Your task to perform on an android device: Go to location settings Image 0: 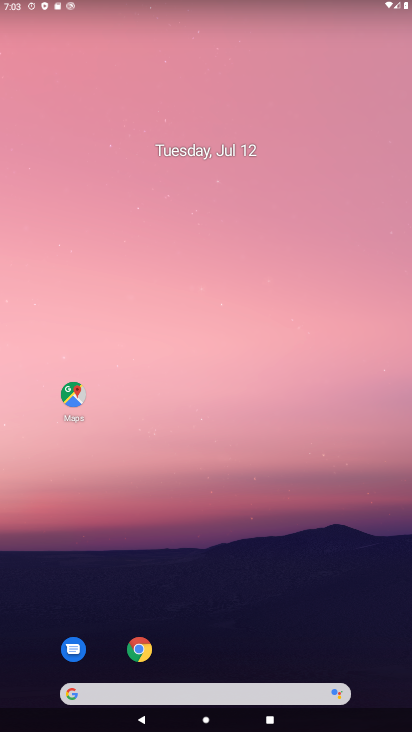
Step 0: drag from (198, 690) to (216, 248)
Your task to perform on an android device: Go to location settings Image 1: 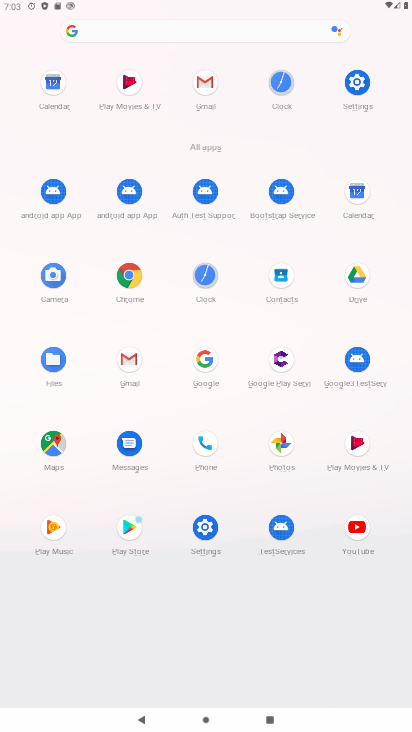
Step 1: click (357, 82)
Your task to perform on an android device: Go to location settings Image 2: 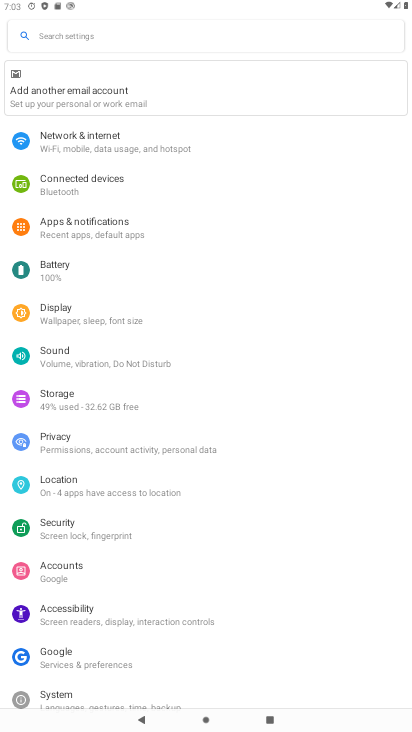
Step 2: click (73, 490)
Your task to perform on an android device: Go to location settings Image 3: 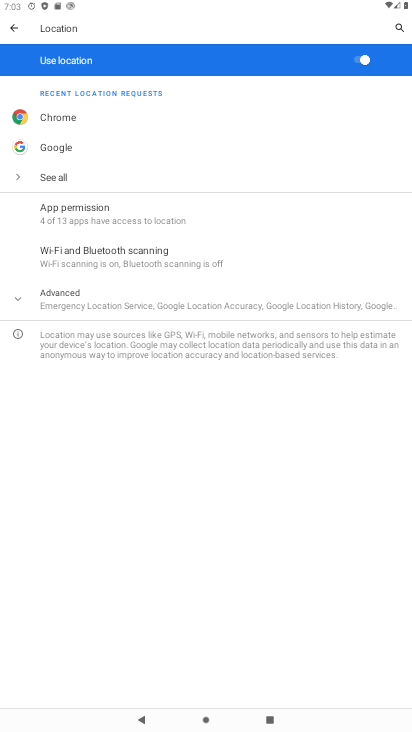
Step 3: task complete